Your task to perform on an android device: allow notifications from all sites in the chrome app Image 0: 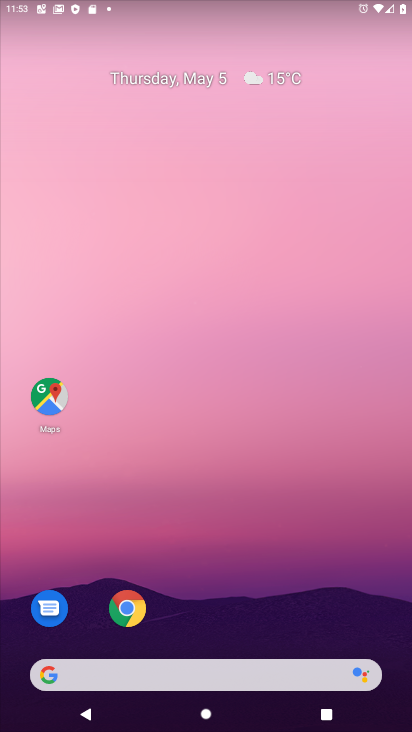
Step 0: click (143, 615)
Your task to perform on an android device: allow notifications from all sites in the chrome app Image 1: 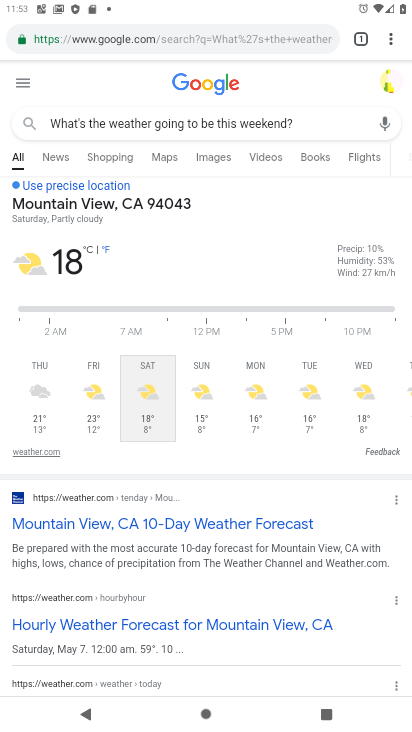
Step 1: drag from (394, 38) to (299, 435)
Your task to perform on an android device: allow notifications from all sites in the chrome app Image 2: 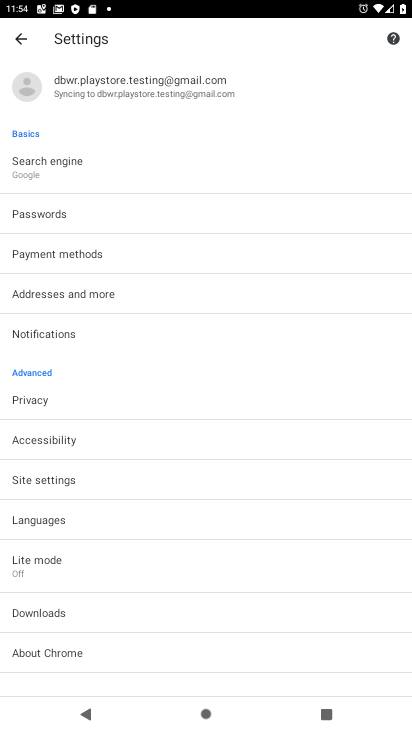
Step 2: click (39, 482)
Your task to perform on an android device: allow notifications from all sites in the chrome app Image 3: 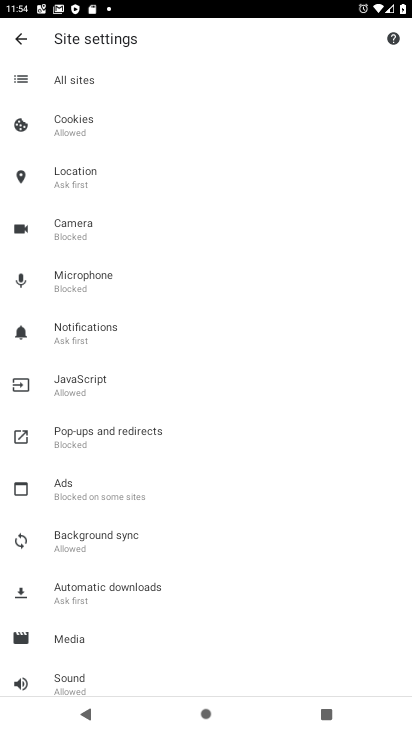
Step 3: click (98, 329)
Your task to perform on an android device: allow notifications from all sites in the chrome app Image 4: 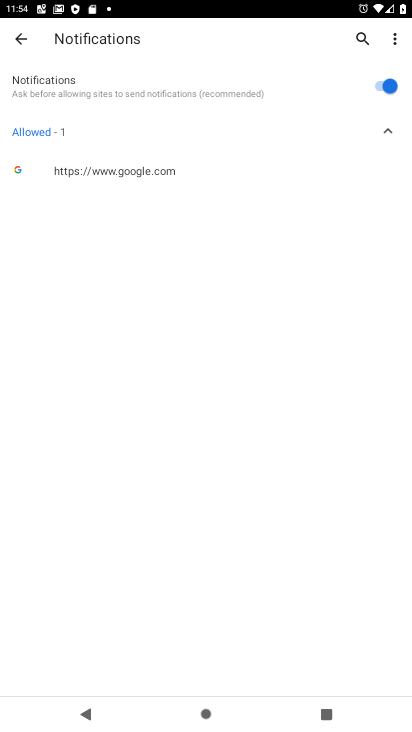
Step 4: task complete